Your task to perform on an android device: Play the last video I watched on Youtube Image 0: 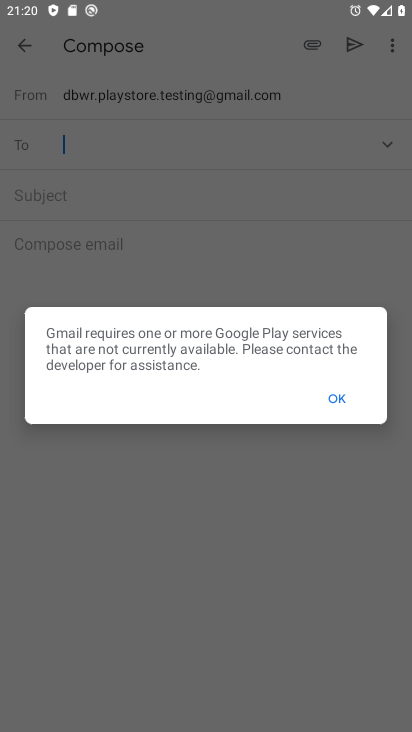
Step 0: press home button
Your task to perform on an android device: Play the last video I watched on Youtube Image 1: 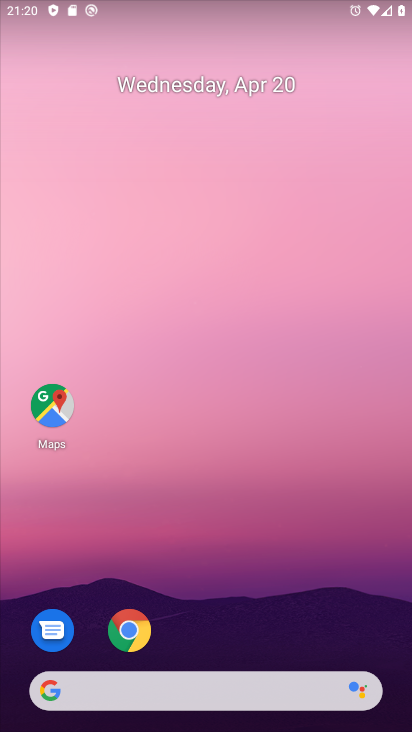
Step 1: drag from (320, 377) to (283, 76)
Your task to perform on an android device: Play the last video I watched on Youtube Image 2: 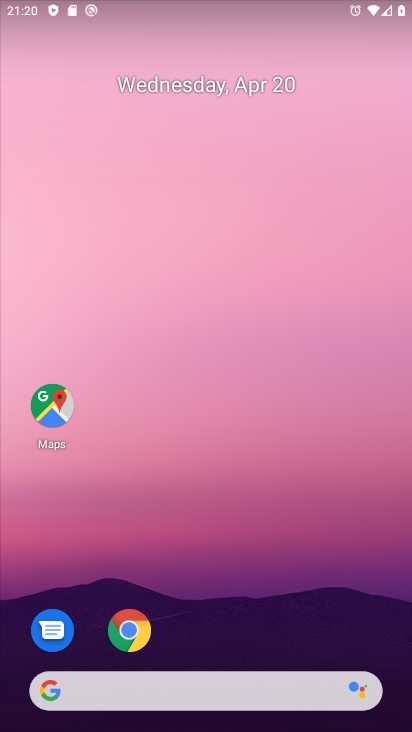
Step 2: drag from (329, 640) to (187, 46)
Your task to perform on an android device: Play the last video I watched on Youtube Image 3: 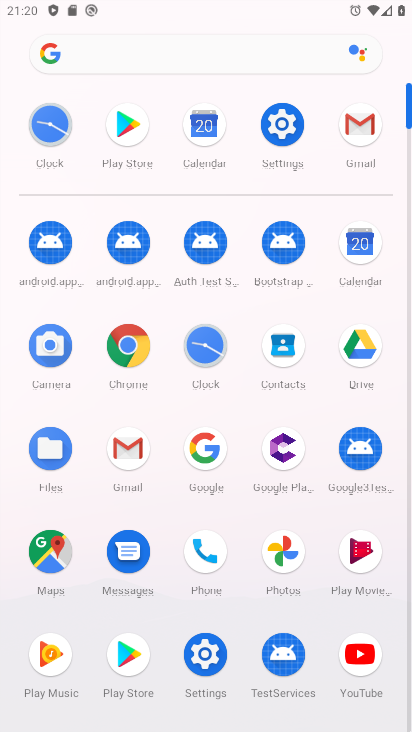
Step 3: click (363, 653)
Your task to perform on an android device: Play the last video I watched on Youtube Image 4: 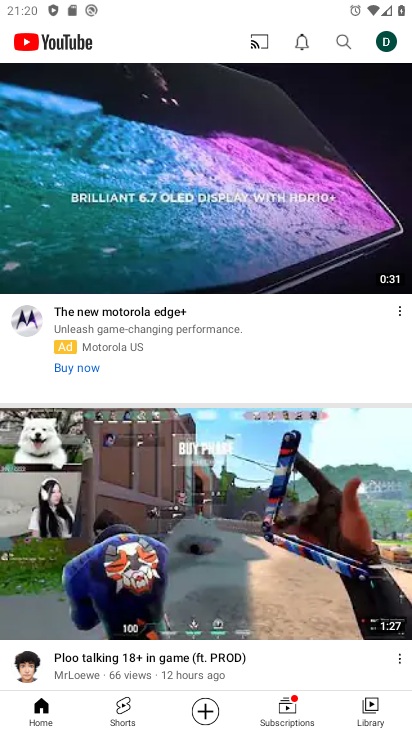
Step 4: click (369, 717)
Your task to perform on an android device: Play the last video I watched on Youtube Image 5: 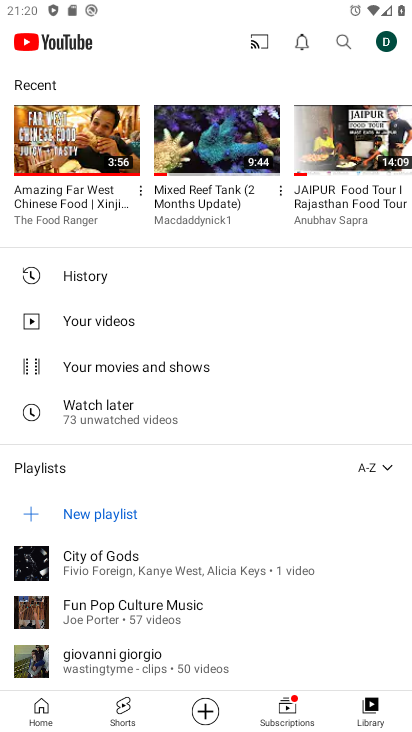
Step 5: click (84, 127)
Your task to perform on an android device: Play the last video I watched on Youtube Image 6: 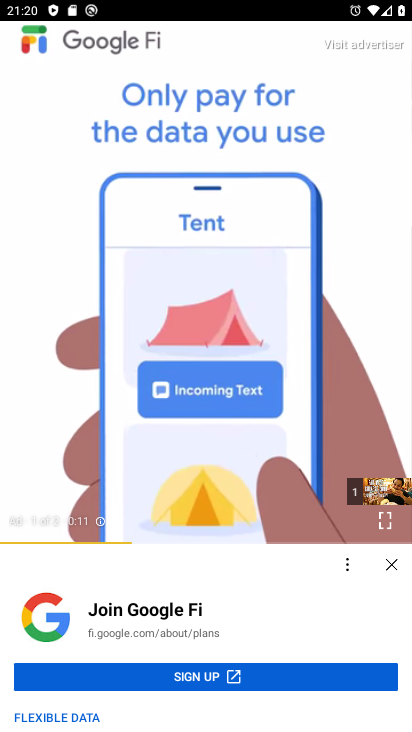
Step 6: click (387, 562)
Your task to perform on an android device: Play the last video I watched on Youtube Image 7: 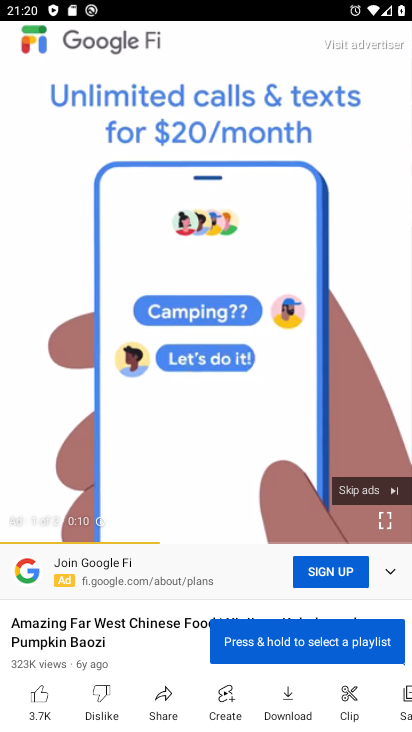
Step 7: click (380, 490)
Your task to perform on an android device: Play the last video I watched on Youtube Image 8: 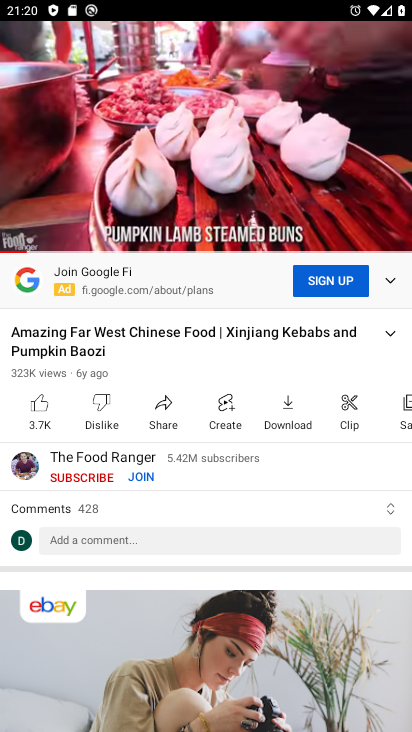
Step 8: click (379, 488)
Your task to perform on an android device: Play the last video I watched on Youtube Image 9: 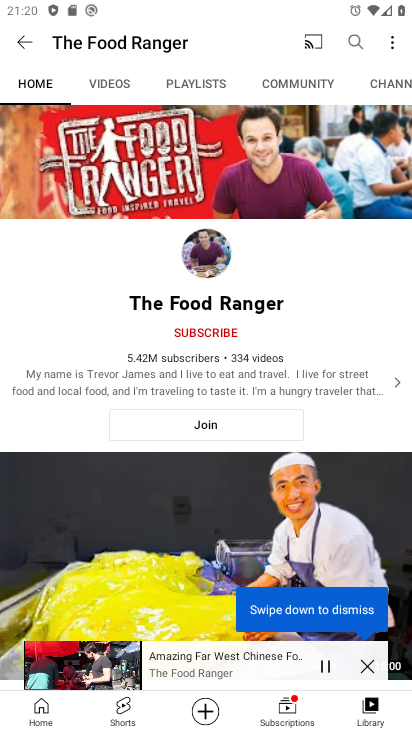
Step 9: task complete